Your task to perform on an android device: toggle pop-ups in chrome Image 0: 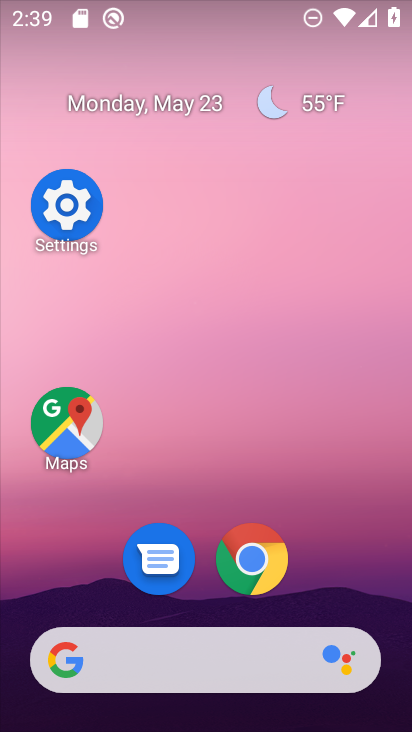
Step 0: click (232, 581)
Your task to perform on an android device: toggle pop-ups in chrome Image 1: 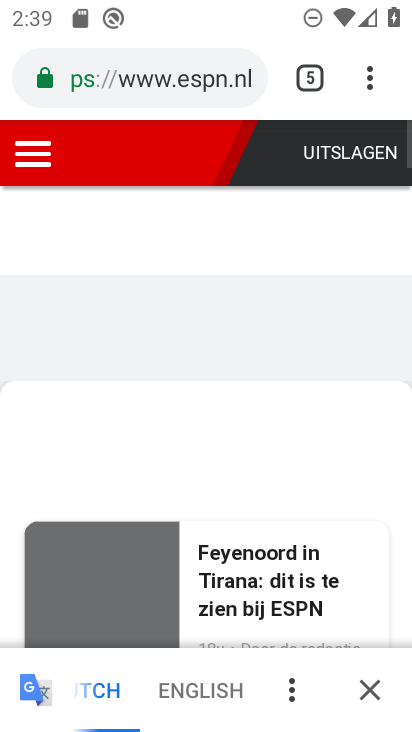
Step 1: click (377, 85)
Your task to perform on an android device: toggle pop-ups in chrome Image 2: 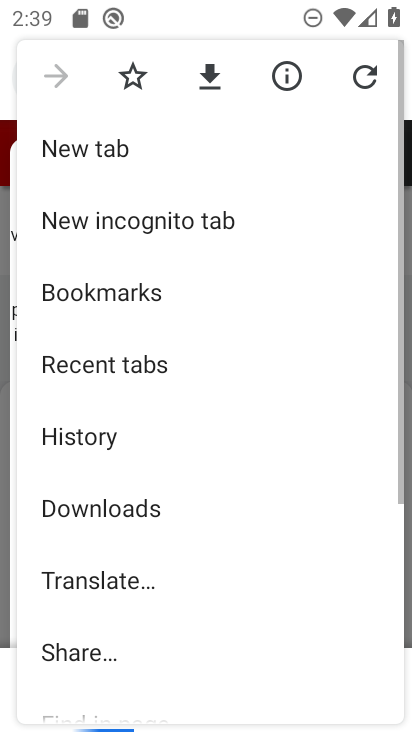
Step 2: drag from (249, 455) to (209, 85)
Your task to perform on an android device: toggle pop-ups in chrome Image 3: 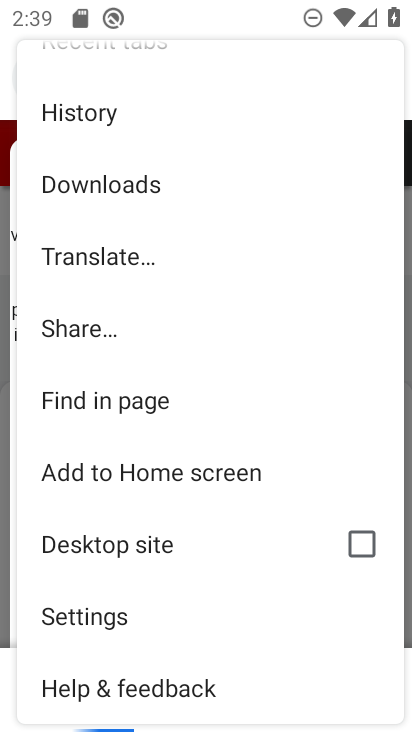
Step 3: click (107, 596)
Your task to perform on an android device: toggle pop-ups in chrome Image 4: 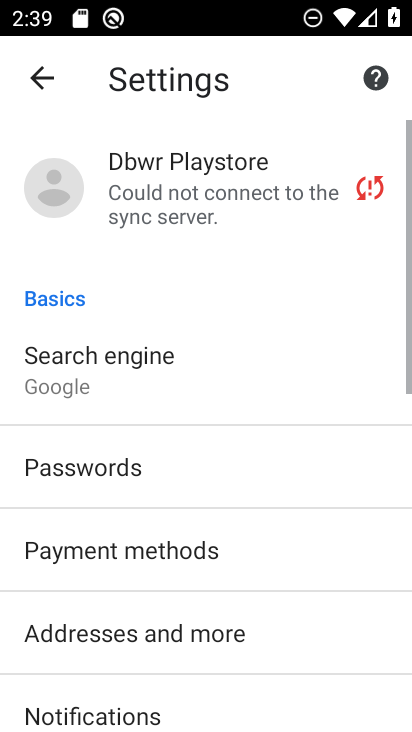
Step 4: drag from (106, 596) to (123, 229)
Your task to perform on an android device: toggle pop-ups in chrome Image 5: 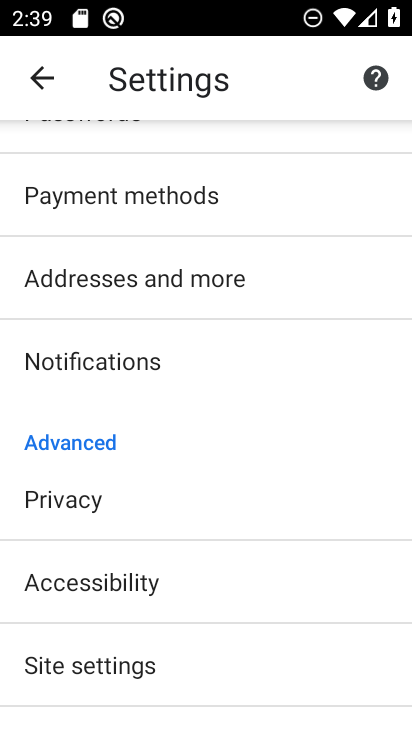
Step 5: drag from (102, 604) to (128, 295)
Your task to perform on an android device: toggle pop-ups in chrome Image 6: 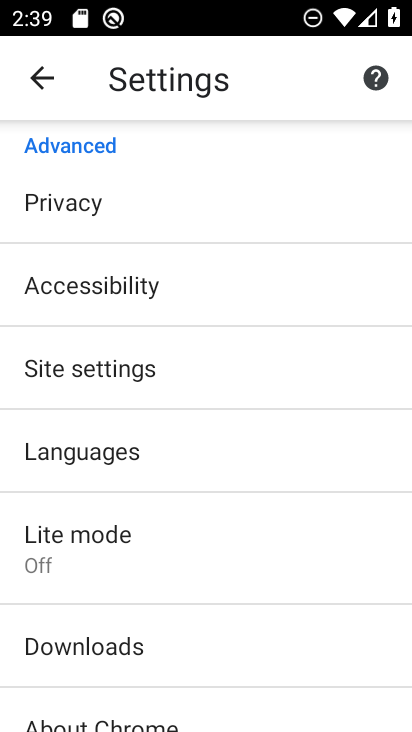
Step 6: click (121, 384)
Your task to perform on an android device: toggle pop-ups in chrome Image 7: 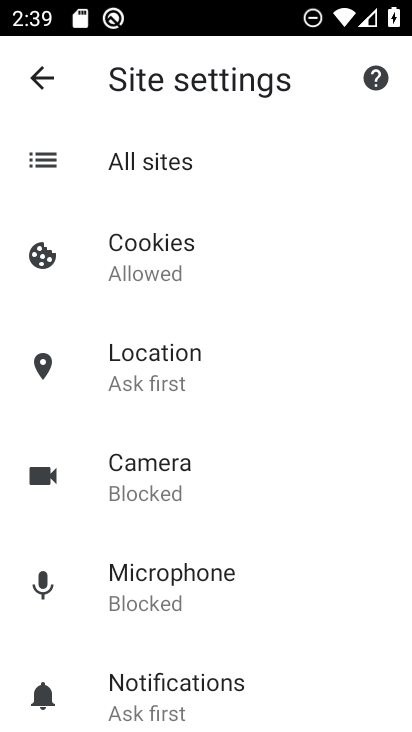
Step 7: drag from (232, 578) to (263, 265)
Your task to perform on an android device: toggle pop-ups in chrome Image 8: 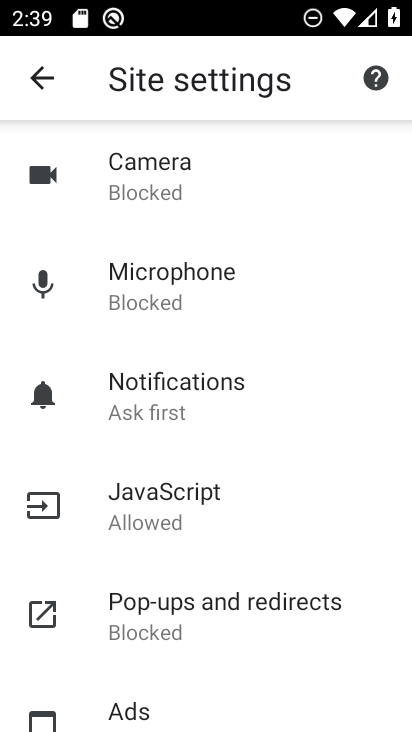
Step 8: click (221, 615)
Your task to perform on an android device: toggle pop-ups in chrome Image 9: 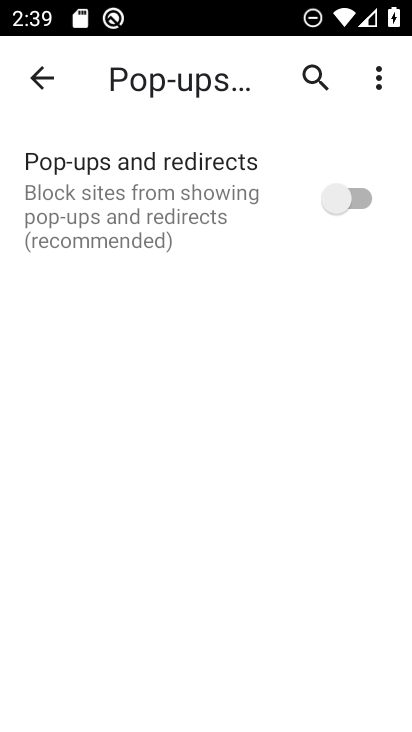
Step 9: click (337, 198)
Your task to perform on an android device: toggle pop-ups in chrome Image 10: 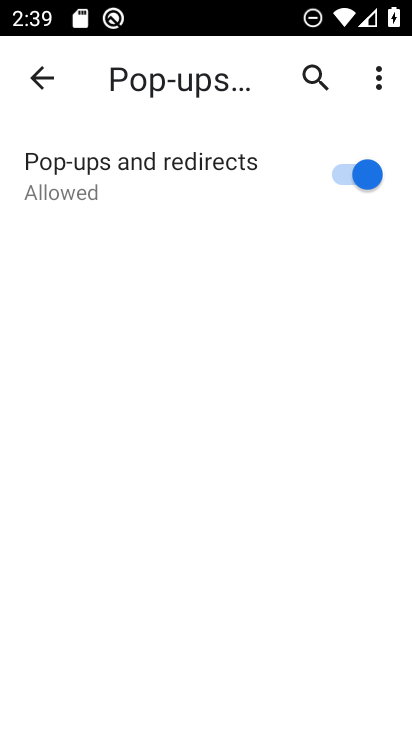
Step 10: task complete